Your task to perform on an android device: Open the map Image 0: 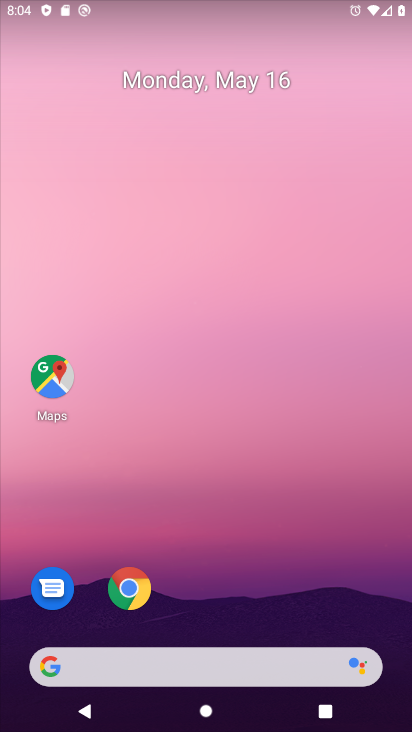
Step 0: drag from (201, 408) to (157, 9)
Your task to perform on an android device: Open the map Image 1: 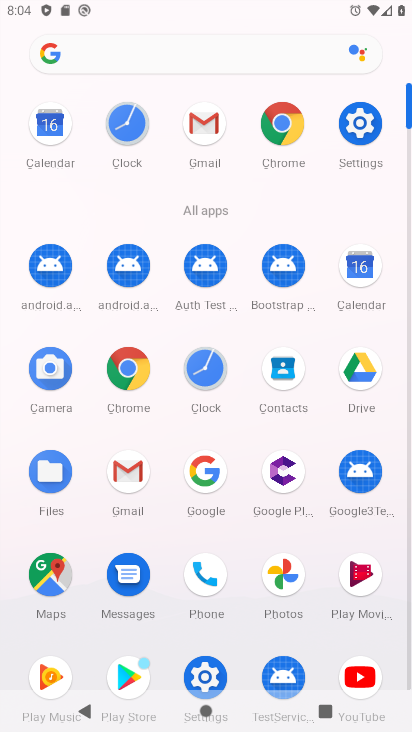
Step 1: click (41, 571)
Your task to perform on an android device: Open the map Image 2: 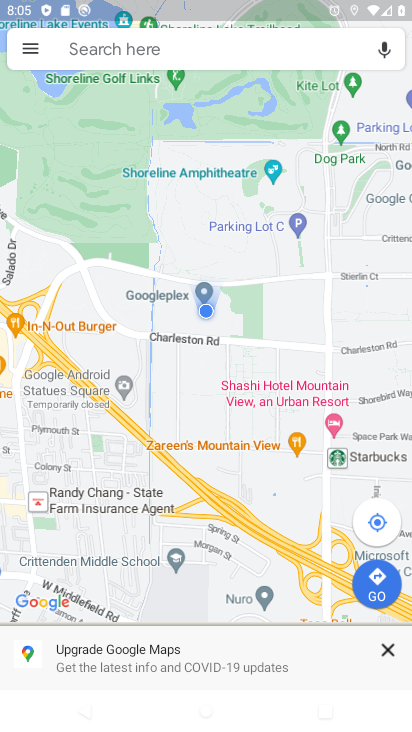
Step 2: task complete